Your task to perform on an android device: Is it going to rain this weekend? Image 0: 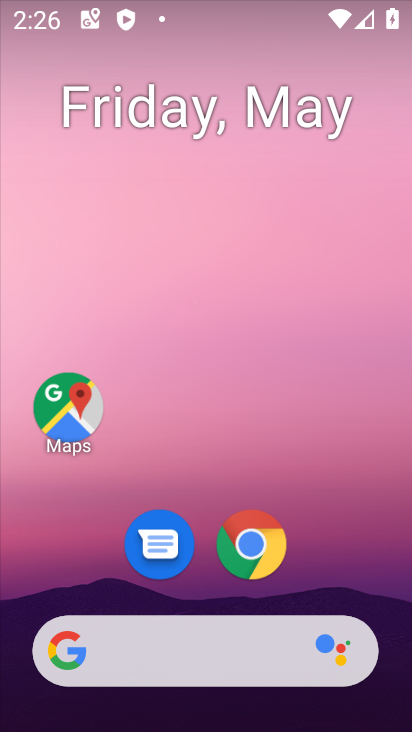
Step 0: drag from (193, 569) to (239, 181)
Your task to perform on an android device: Is it going to rain this weekend? Image 1: 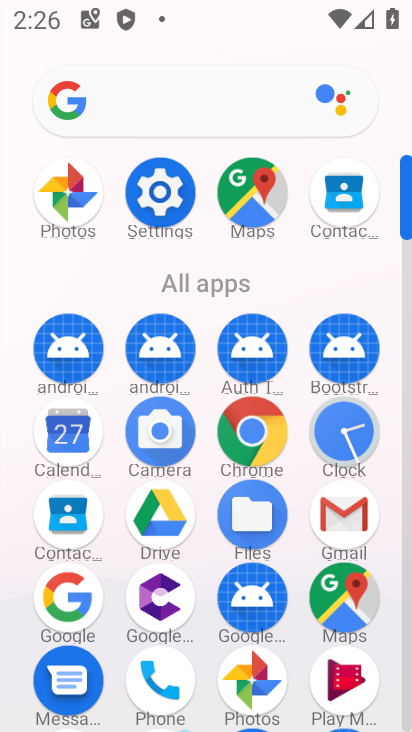
Step 1: click (58, 599)
Your task to perform on an android device: Is it going to rain this weekend? Image 2: 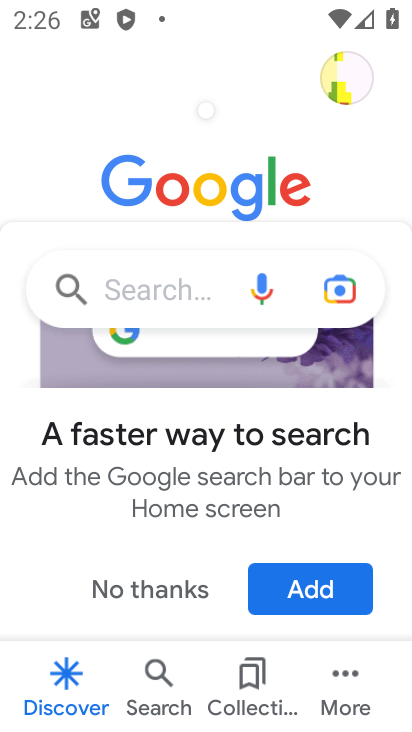
Step 2: click (147, 269)
Your task to perform on an android device: Is it going to rain this weekend? Image 3: 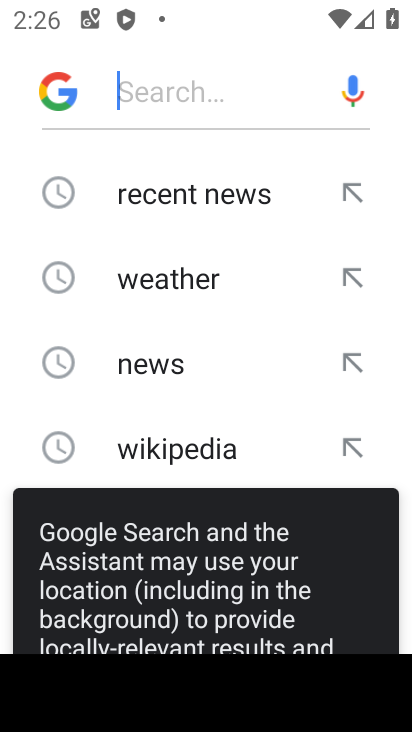
Step 3: click (181, 293)
Your task to perform on an android device: Is it going to rain this weekend? Image 4: 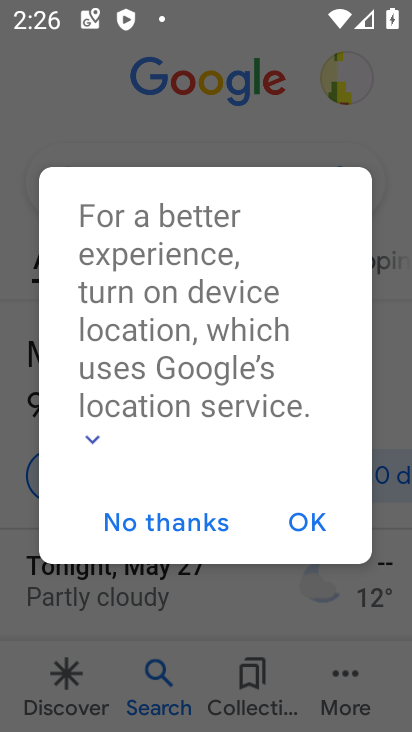
Step 4: click (314, 516)
Your task to perform on an android device: Is it going to rain this weekend? Image 5: 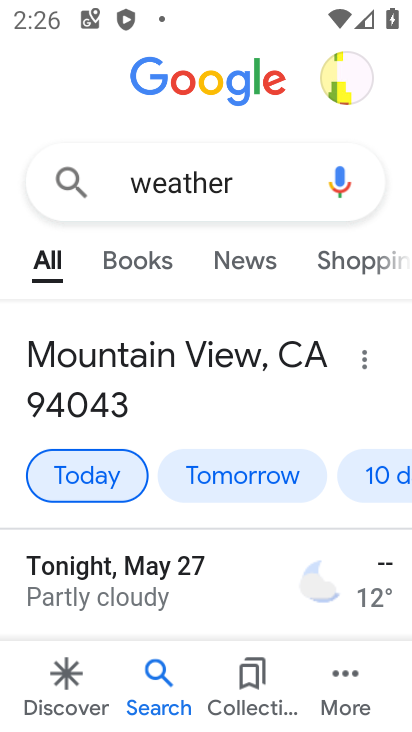
Step 5: click (375, 466)
Your task to perform on an android device: Is it going to rain this weekend? Image 6: 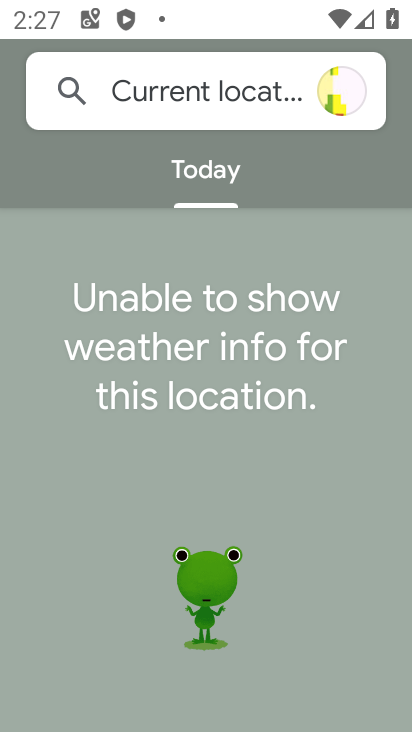
Step 6: press back button
Your task to perform on an android device: Is it going to rain this weekend? Image 7: 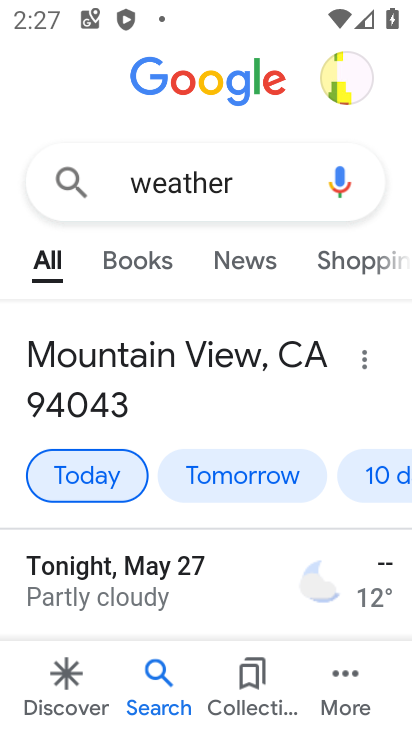
Step 7: click (364, 465)
Your task to perform on an android device: Is it going to rain this weekend? Image 8: 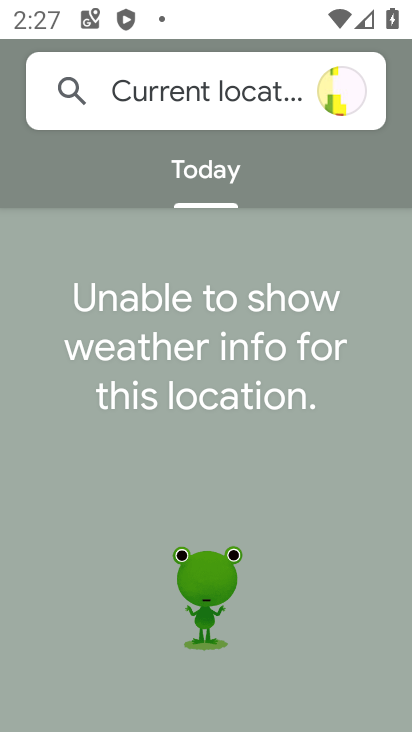
Step 8: task complete